Your task to perform on an android device: Do I have any events tomorrow? Image 0: 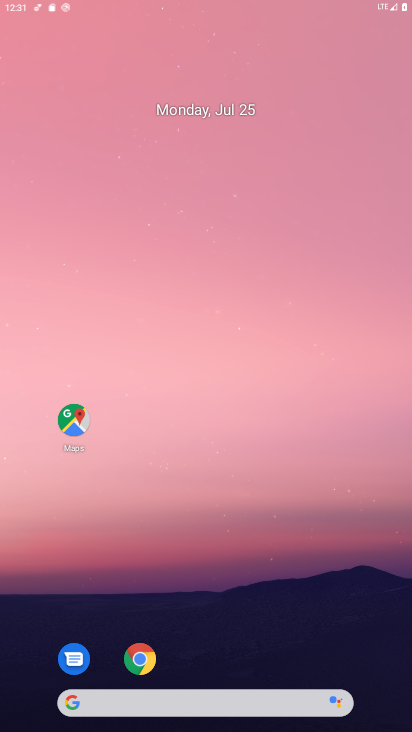
Step 0: press home button
Your task to perform on an android device: Do I have any events tomorrow? Image 1: 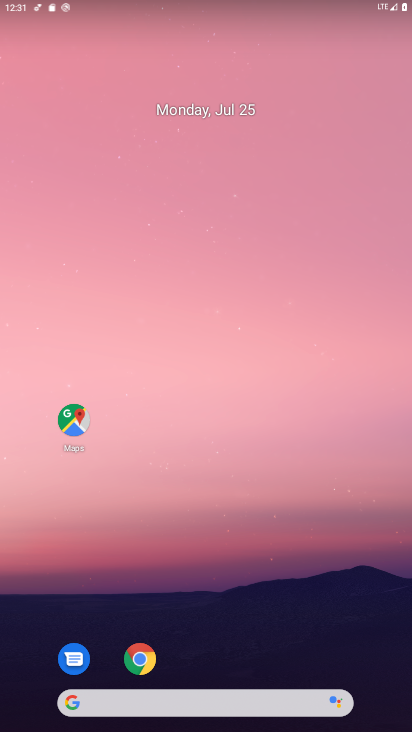
Step 1: drag from (225, 672) to (204, 3)
Your task to perform on an android device: Do I have any events tomorrow? Image 2: 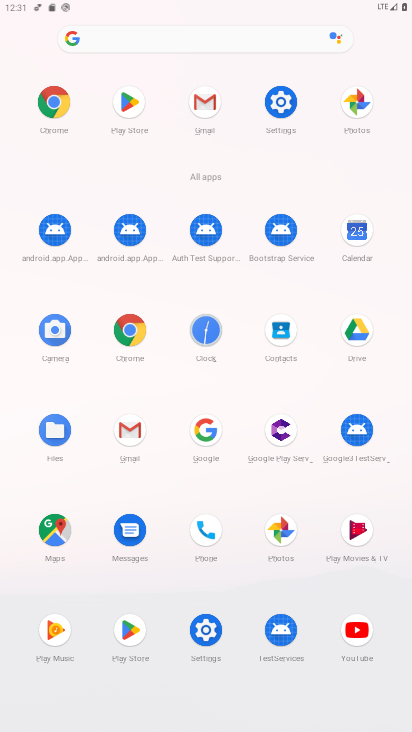
Step 2: click (354, 224)
Your task to perform on an android device: Do I have any events tomorrow? Image 3: 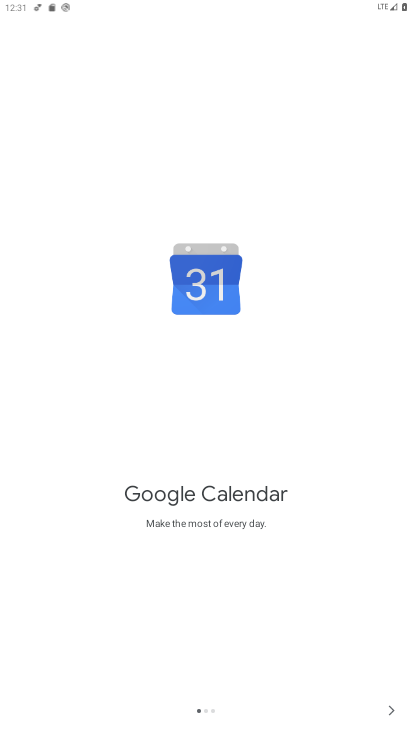
Step 3: click (390, 704)
Your task to perform on an android device: Do I have any events tomorrow? Image 4: 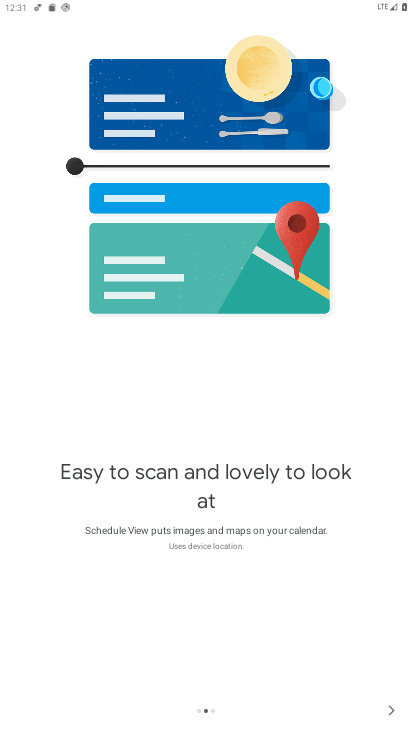
Step 4: click (390, 705)
Your task to perform on an android device: Do I have any events tomorrow? Image 5: 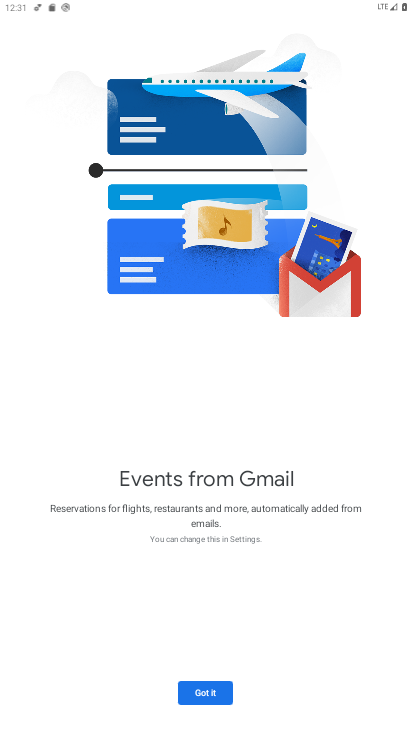
Step 5: click (202, 691)
Your task to perform on an android device: Do I have any events tomorrow? Image 6: 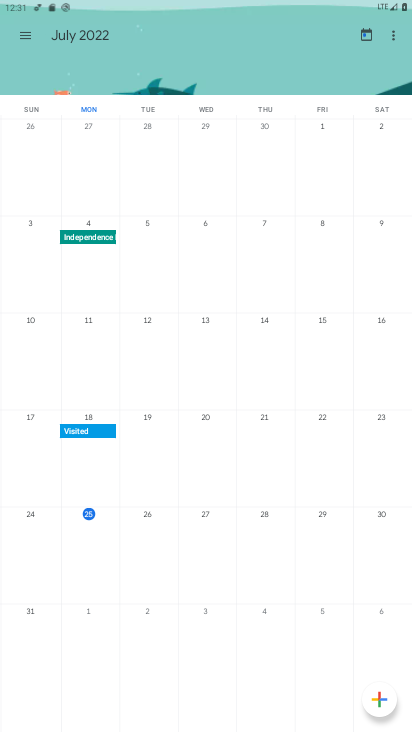
Step 6: click (27, 32)
Your task to perform on an android device: Do I have any events tomorrow? Image 7: 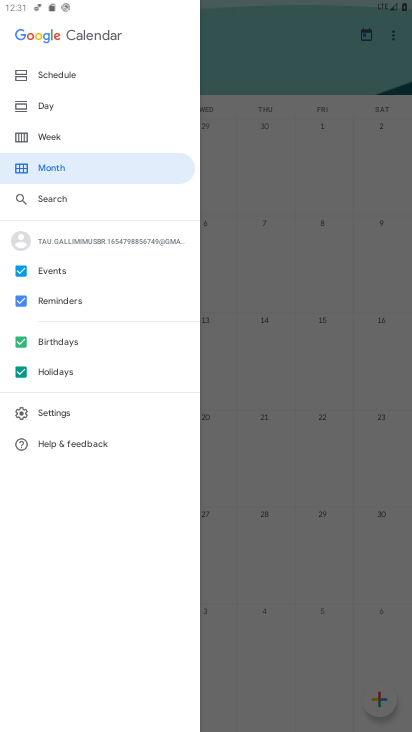
Step 7: click (39, 100)
Your task to perform on an android device: Do I have any events tomorrow? Image 8: 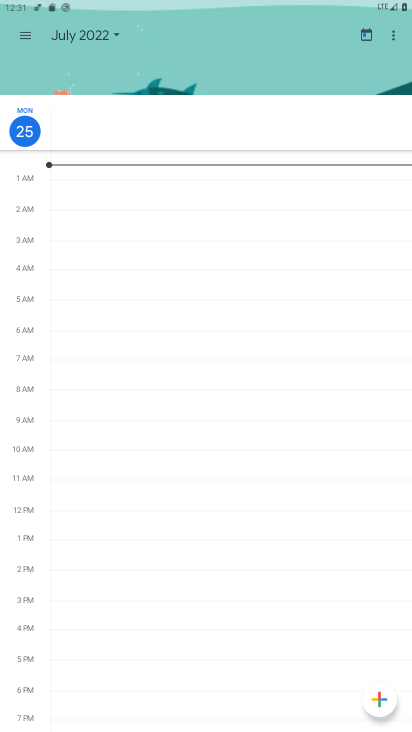
Step 8: click (114, 29)
Your task to perform on an android device: Do I have any events tomorrow? Image 9: 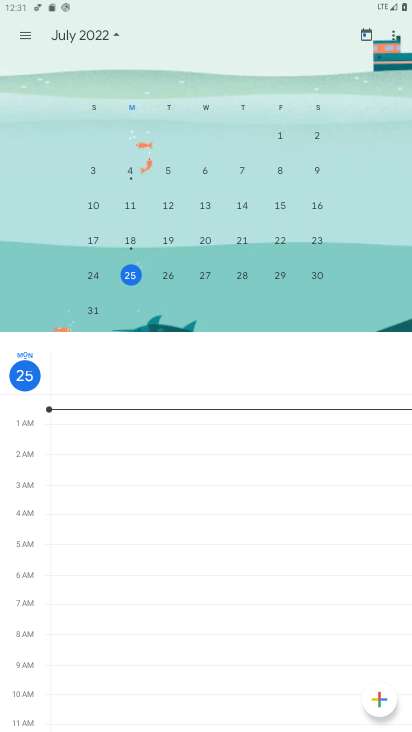
Step 9: click (167, 275)
Your task to perform on an android device: Do I have any events tomorrow? Image 10: 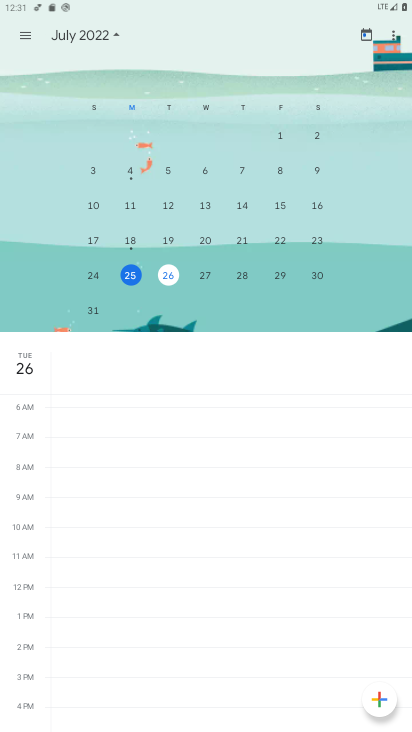
Step 10: click (41, 371)
Your task to perform on an android device: Do I have any events tomorrow? Image 11: 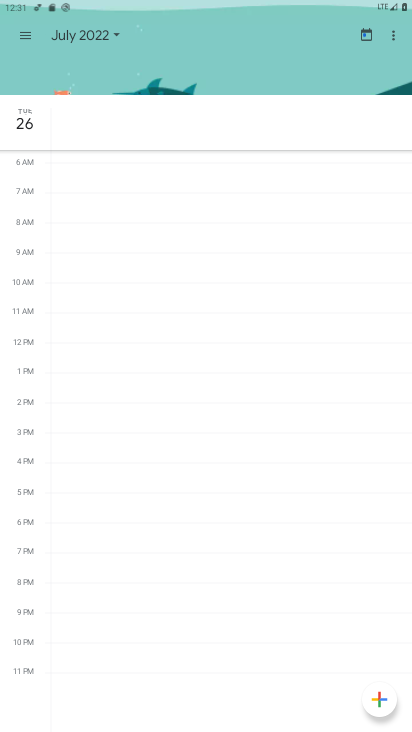
Step 11: task complete